Your task to perform on an android device: Search for vegetarian restaurants on Maps Image 0: 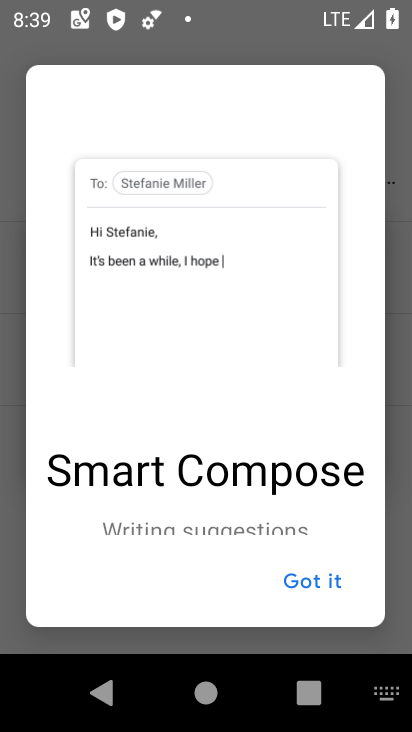
Step 0: press home button
Your task to perform on an android device: Search for vegetarian restaurants on Maps Image 1: 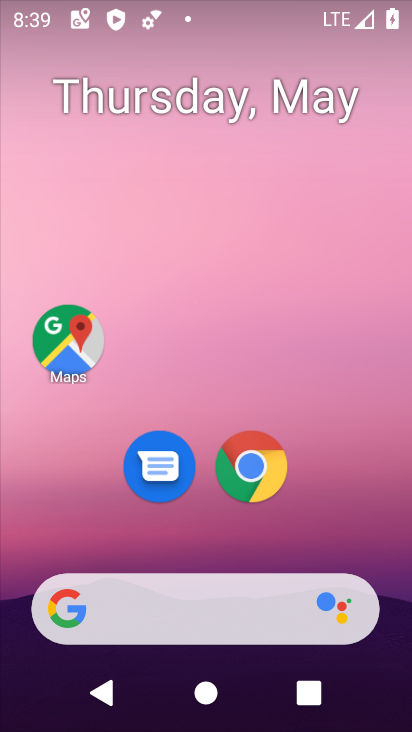
Step 1: click (69, 342)
Your task to perform on an android device: Search for vegetarian restaurants on Maps Image 2: 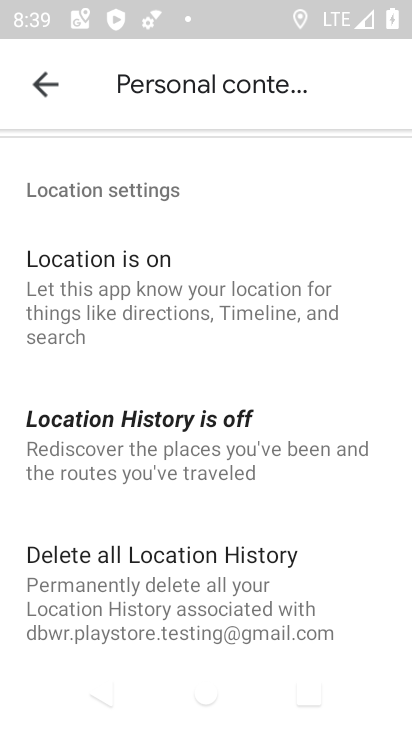
Step 2: click (32, 84)
Your task to perform on an android device: Search for vegetarian restaurants on Maps Image 3: 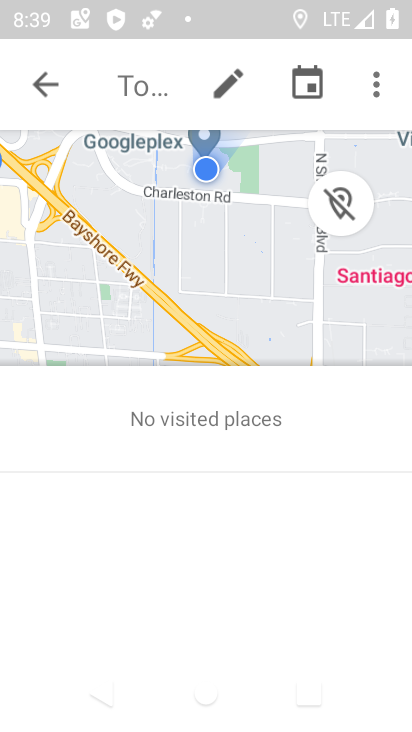
Step 3: click (39, 85)
Your task to perform on an android device: Search for vegetarian restaurants on Maps Image 4: 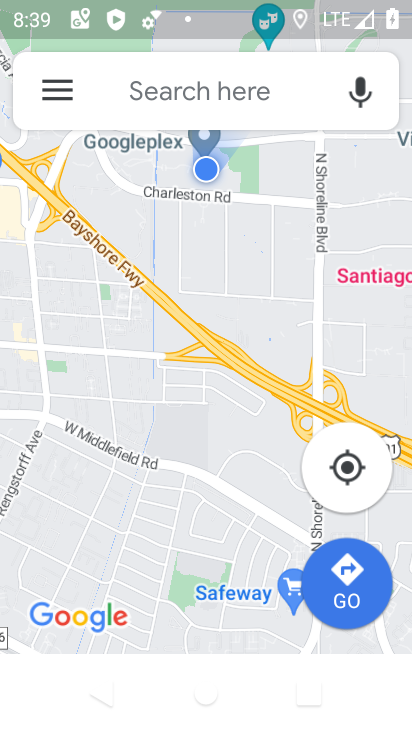
Step 4: click (128, 92)
Your task to perform on an android device: Search for vegetarian restaurants on Maps Image 5: 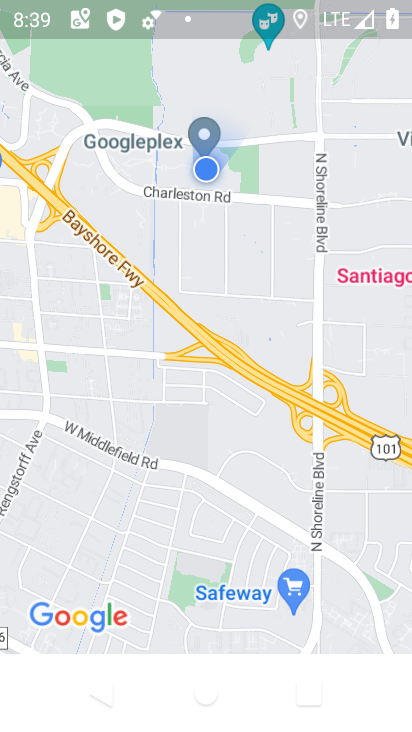
Step 5: click (151, 50)
Your task to perform on an android device: Search for vegetarian restaurants on Maps Image 6: 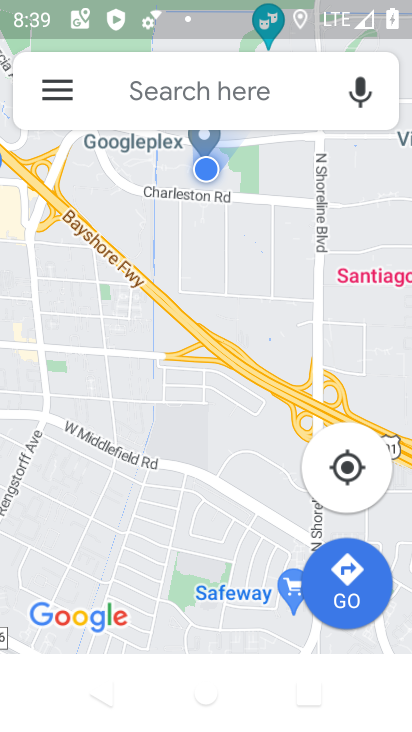
Step 6: click (146, 98)
Your task to perform on an android device: Search for vegetarian restaurants on Maps Image 7: 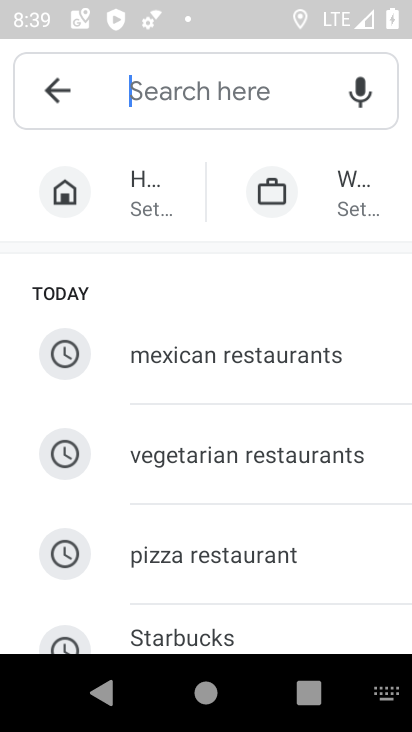
Step 7: type "vegetarian restaurants"
Your task to perform on an android device: Search for vegetarian restaurants on Maps Image 8: 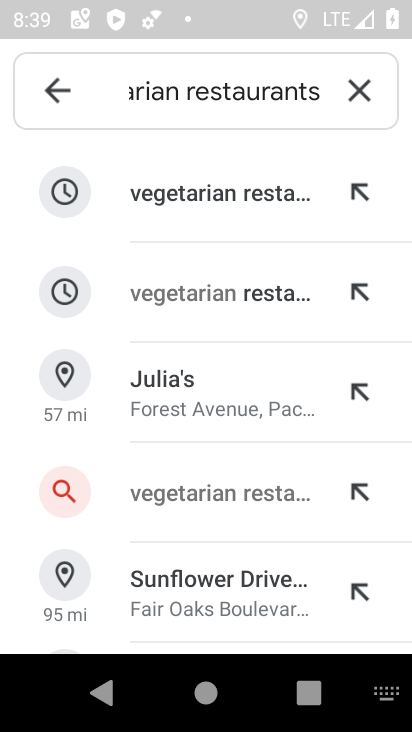
Step 8: click (205, 197)
Your task to perform on an android device: Search for vegetarian restaurants on Maps Image 9: 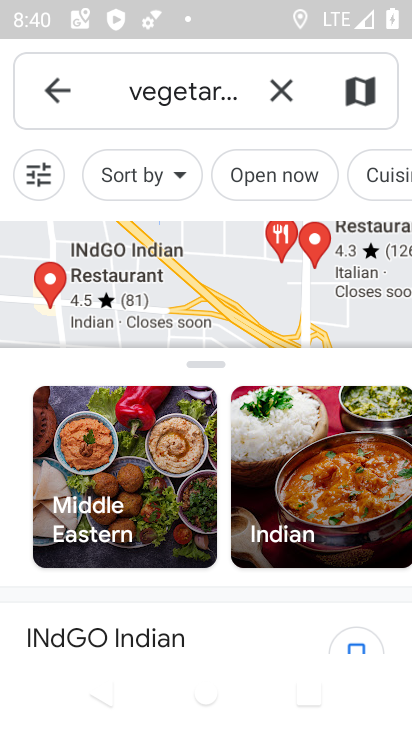
Step 9: task complete